Your task to perform on an android device: turn on location history Image 0: 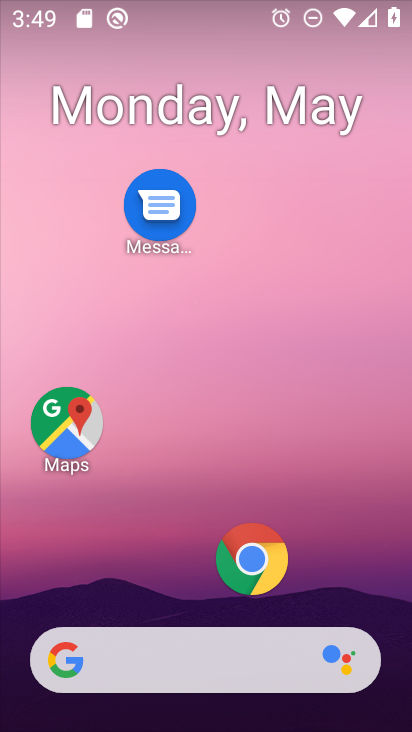
Step 0: drag from (210, 632) to (276, 108)
Your task to perform on an android device: turn on location history Image 1: 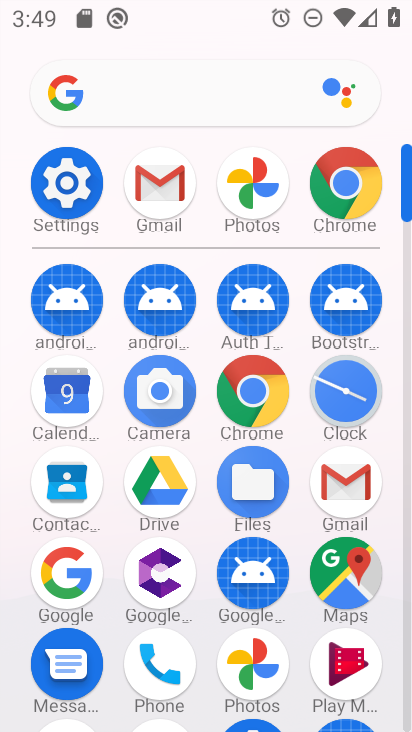
Step 1: drag from (214, 687) to (161, 174)
Your task to perform on an android device: turn on location history Image 2: 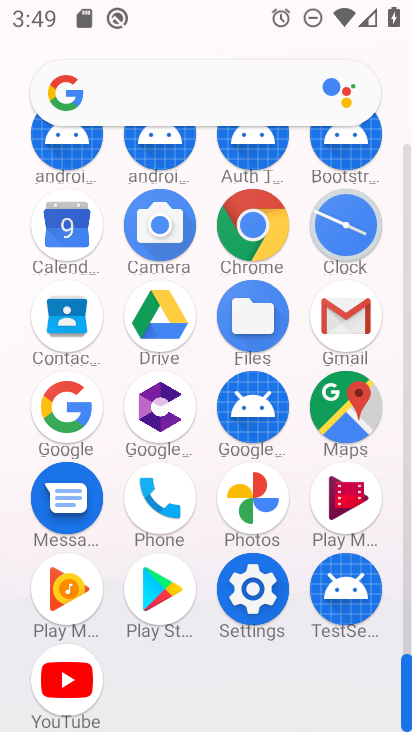
Step 2: drag from (213, 640) to (248, 222)
Your task to perform on an android device: turn on location history Image 3: 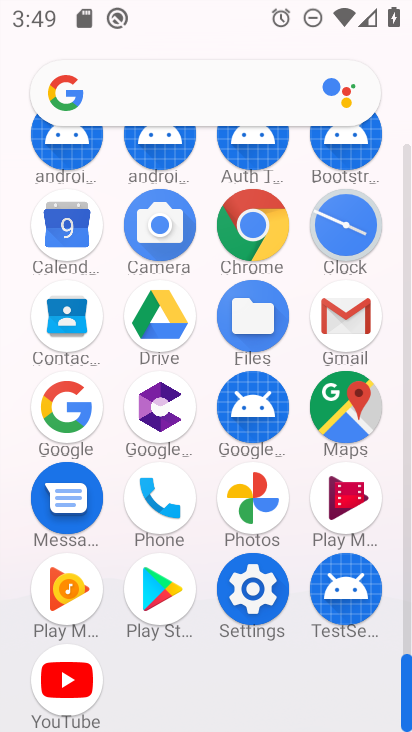
Step 3: click (248, 593)
Your task to perform on an android device: turn on location history Image 4: 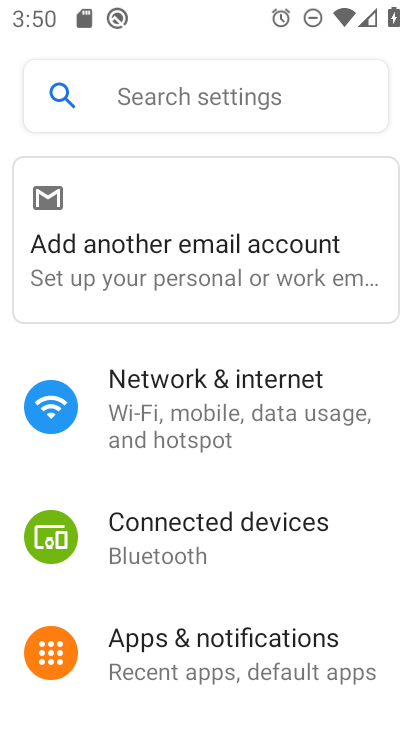
Step 4: drag from (245, 632) to (310, 32)
Your task to perform on an android device: turn on location history Image 5: 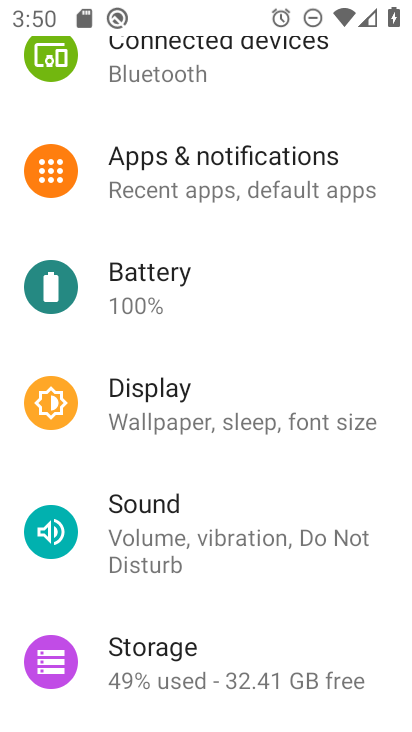
Step 5: drag from (223, 560) to (274, 195)
Your task to perform on an android device: turn on location history Image 6: 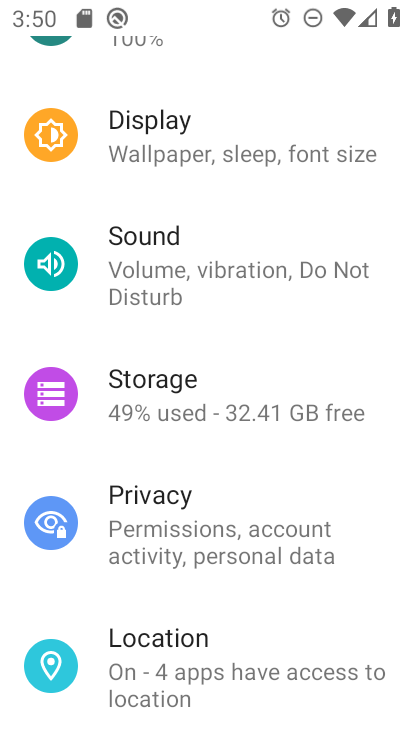
Step 6: click (170, 654)
Your task to perform on an android device: turn on location history Image 7: 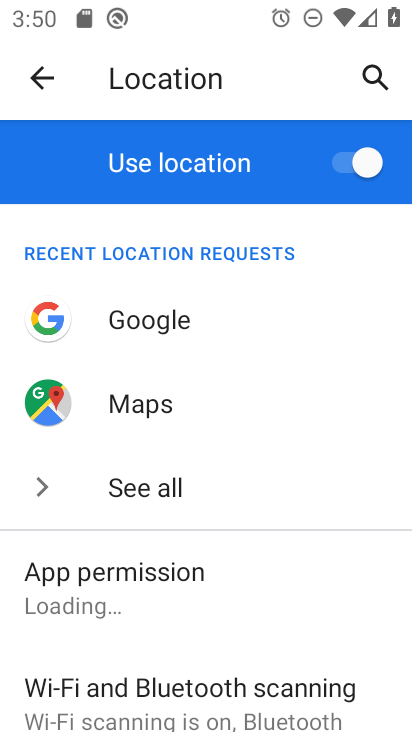
Step 7: drag from (187, 573) to (279, 178)
Your task to perform on an android device: turn on location history Image 8: 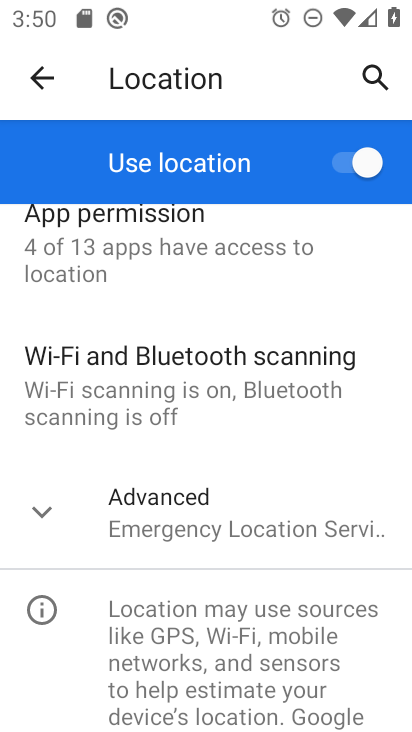
Step 8: drag from (220, 485) to (329, 213)
Your task to perform on an android device: turn on location history Image 9: 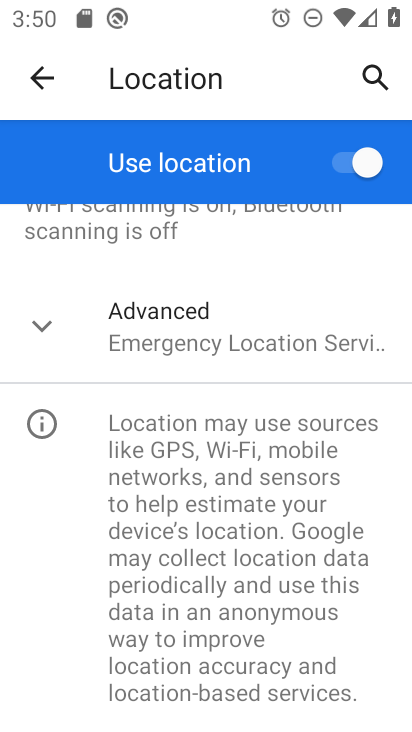
Step 9: click (141, 316)
Your task to perform on an android device: turn on location history Image 10: 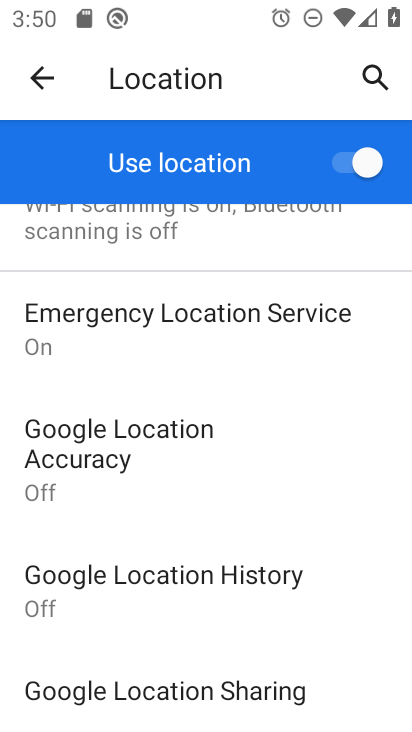
Step 10: drag from (257, 572) to (320, 275)
Your task to perform on an android device: turn on location history Image 11: 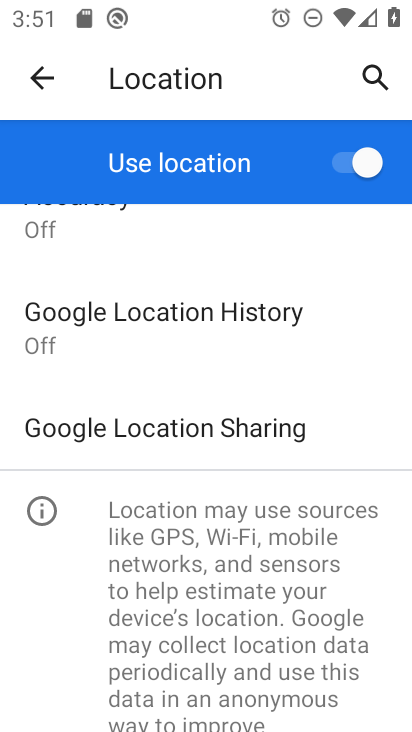
Step 11: click (166, 339)
Your task to perform on an android device: turn on location history Image 12: 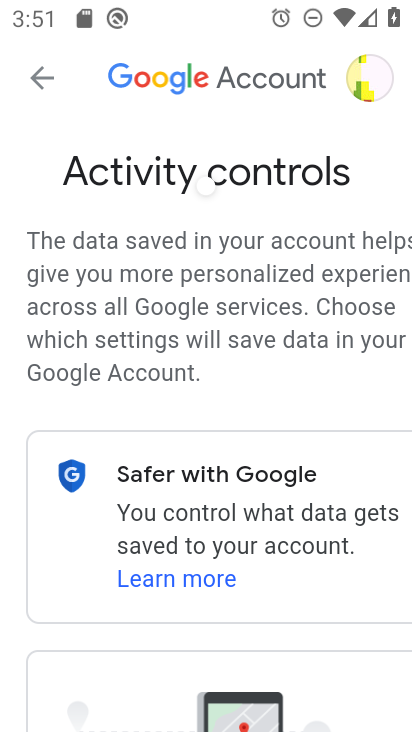
Step 12: drag from (228, 573) to (296, 62)
Your task to perform on an android device: turn on location history Image 13: 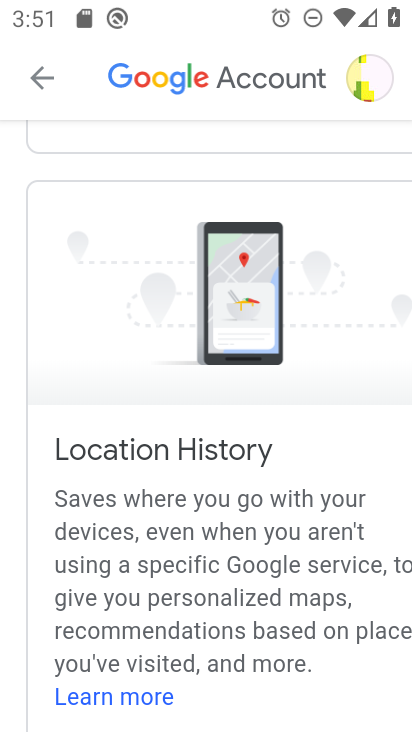
Step 13: drag from (280, 615) to (259, 197)
Your task to perform on an android device: turn on location history Image 14: 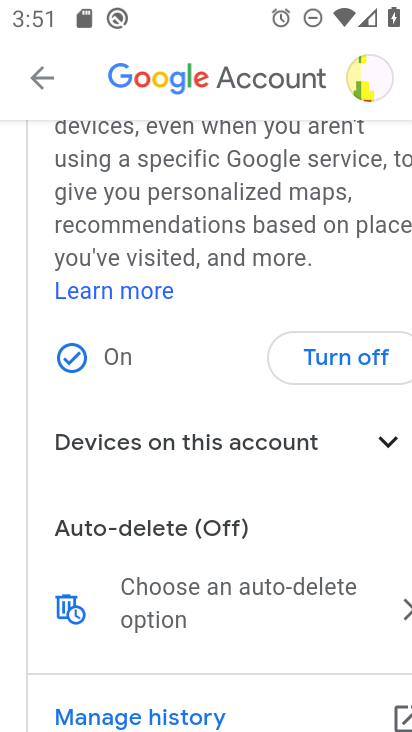
Step 14: click (82, 349)
Your task to perform on an android device: turn on location history Image 15: 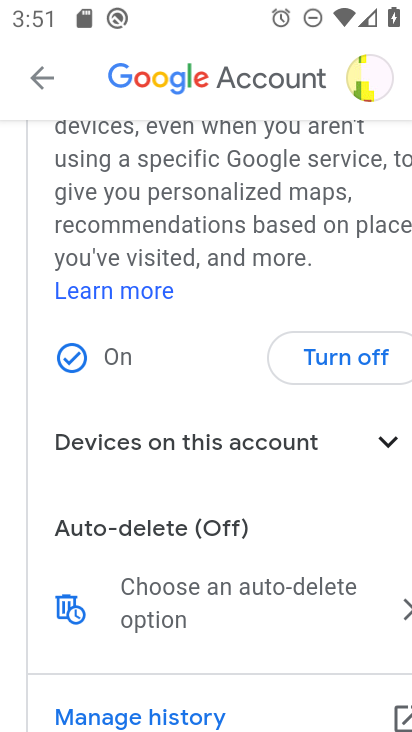
Step 15: click (321, 356)
Your task to perform on an android device: turn on location history Image 16: 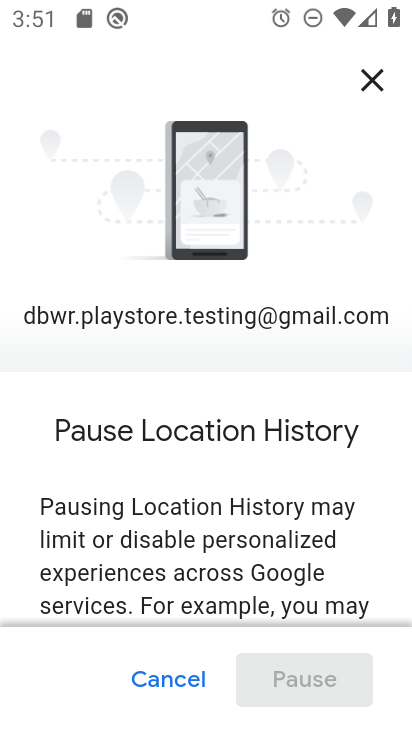
Step 16: drag from (257, 576) to (314, 60)
Your task to perform on an android device: turn on location history Image 17: 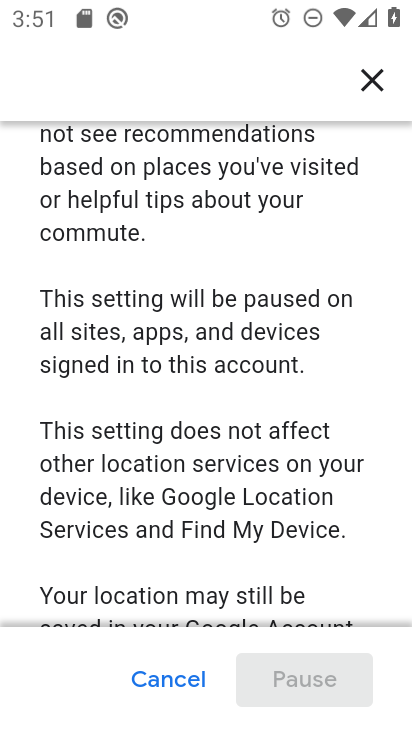
Step 17: drag from (207, 542) to (228, 116)
Your task to perform on an android device: turn on location history Image 18: 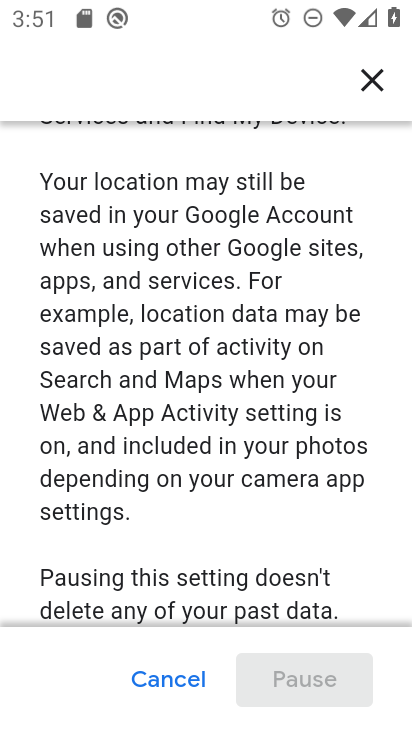
Step 18: drag from (196, 562) to (212, 142)
Your task to perform on an android device: turn on location history Image 19: 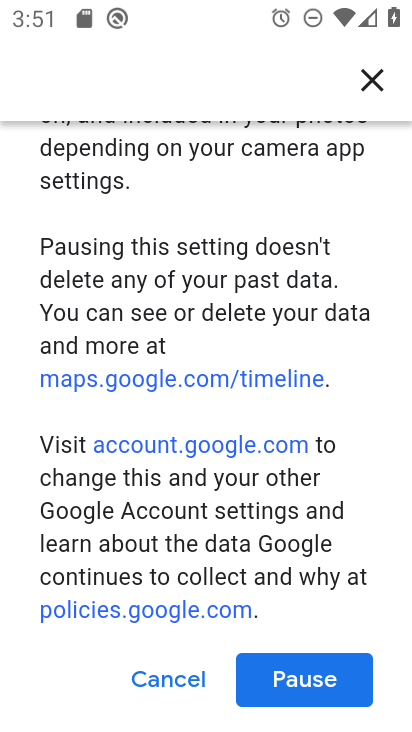
Step 19: drag from (197, 547) to (202, 116)
Your task to perform on an android device: turn on location history Image 20: 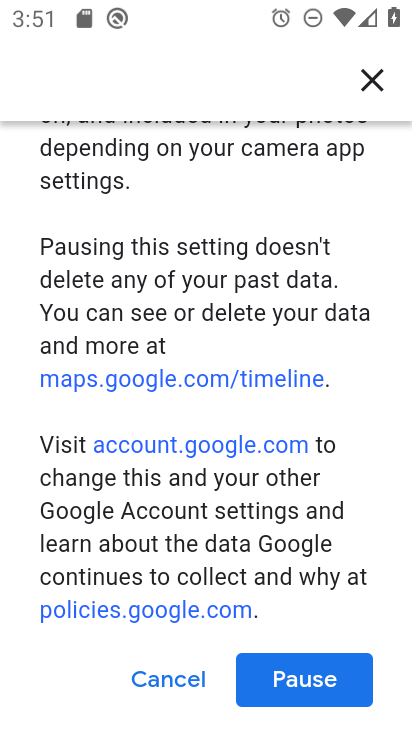
Step 20: click (307, 670)
Your task to perform on an android device: turn on location history Image 21: 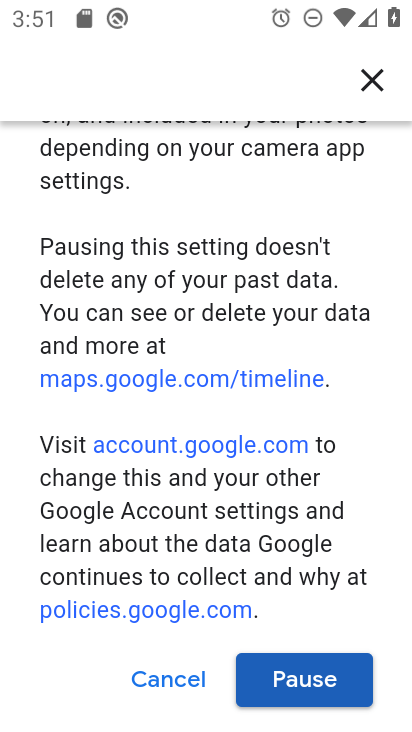
Step 21: click (270, 674)
Your task to perform on an android device: turn on location history Image 22: 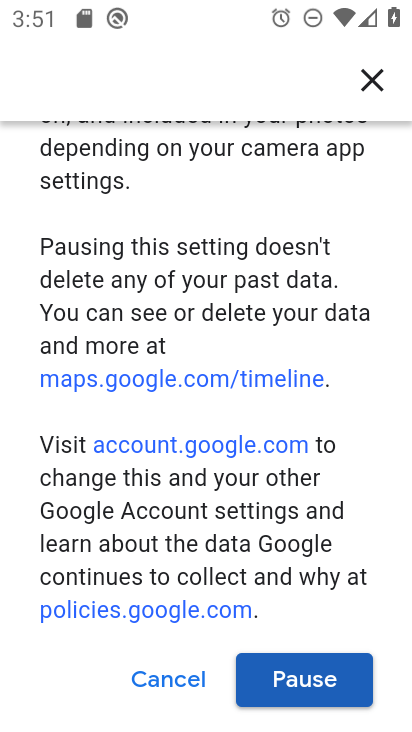
Step 22: click (270, 674)
Your task to perform on an android device: turn on location history Image 23: 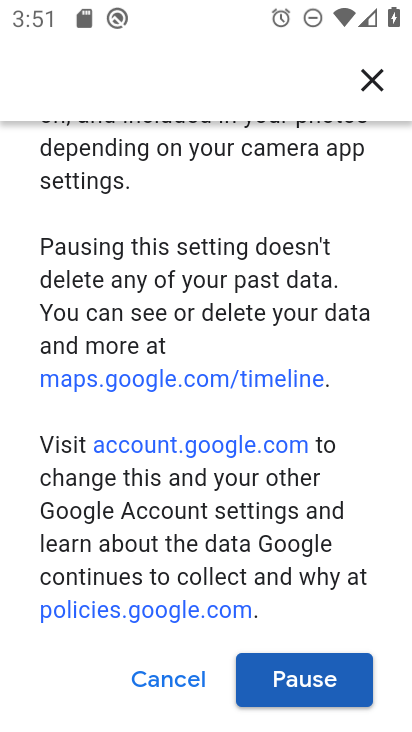
Step 23: task complete